Your task to perform on an android device: Clear all items from cart on bestbuy.com. Image 0: 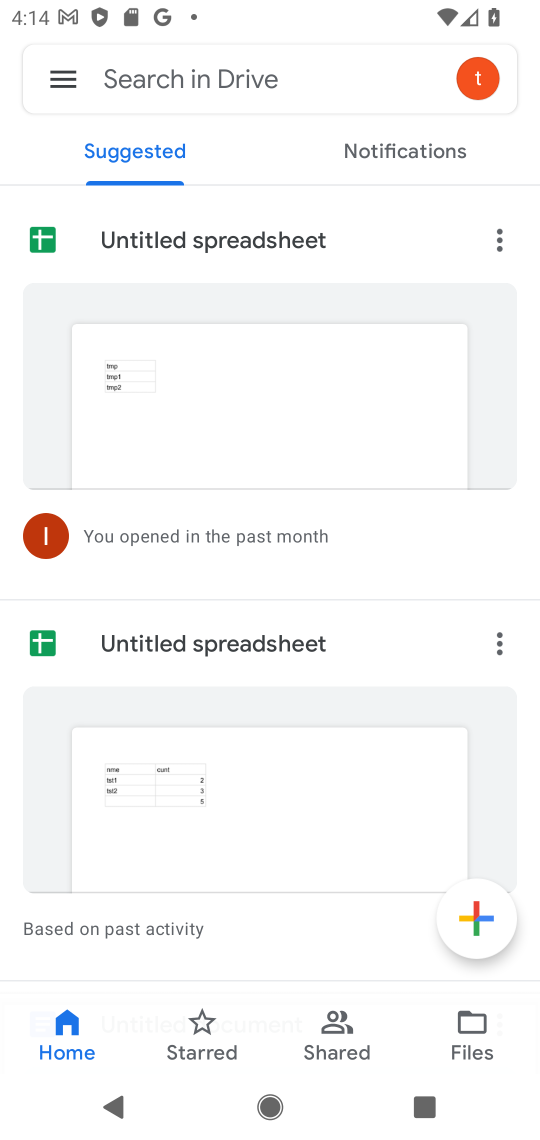
Step 0: press home button
Your task to perform on an android device: Clear all items from cart on bestbuy.com. Image 1: 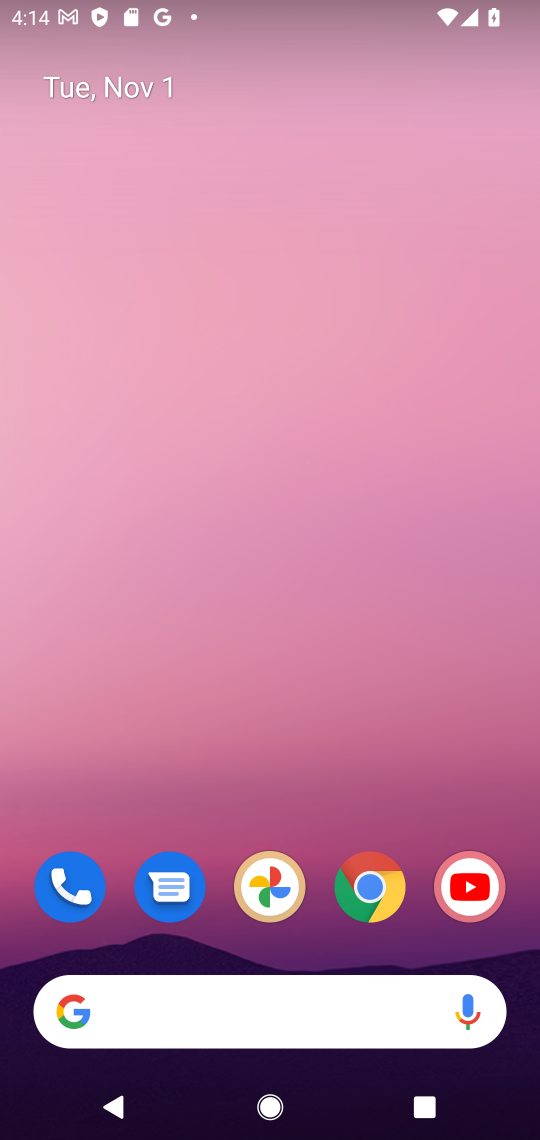
Step 1: drag from (328, 859) to (406, 196)
Your task to perform on an android device: Clear all items from cart on bestbuy.com. Image 2: 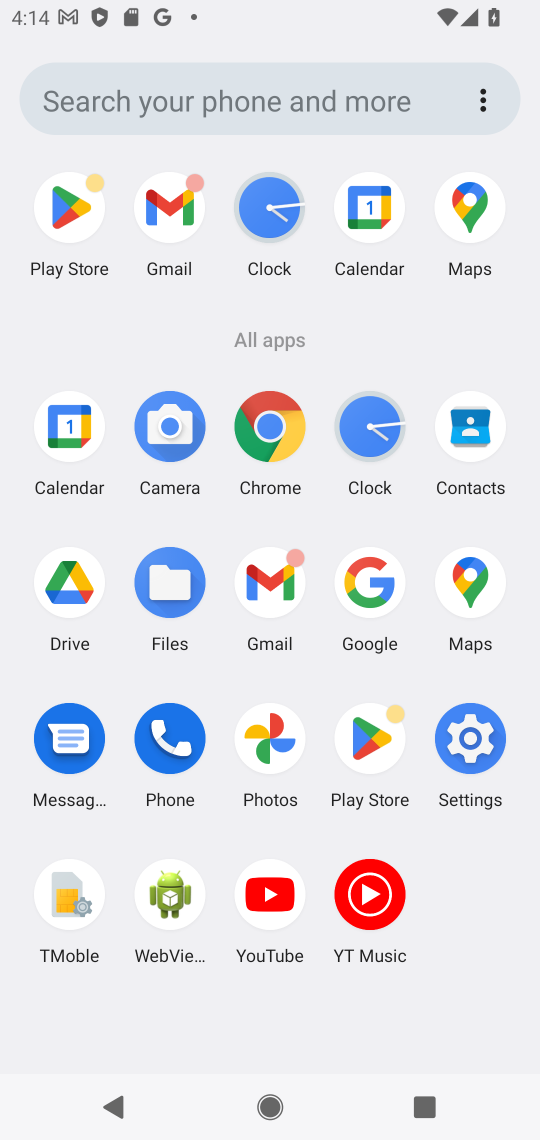
Step 2: click (273, 432)
Your task to perform on an android device: Clear all items from cart on bestbuy.com. Image 3: 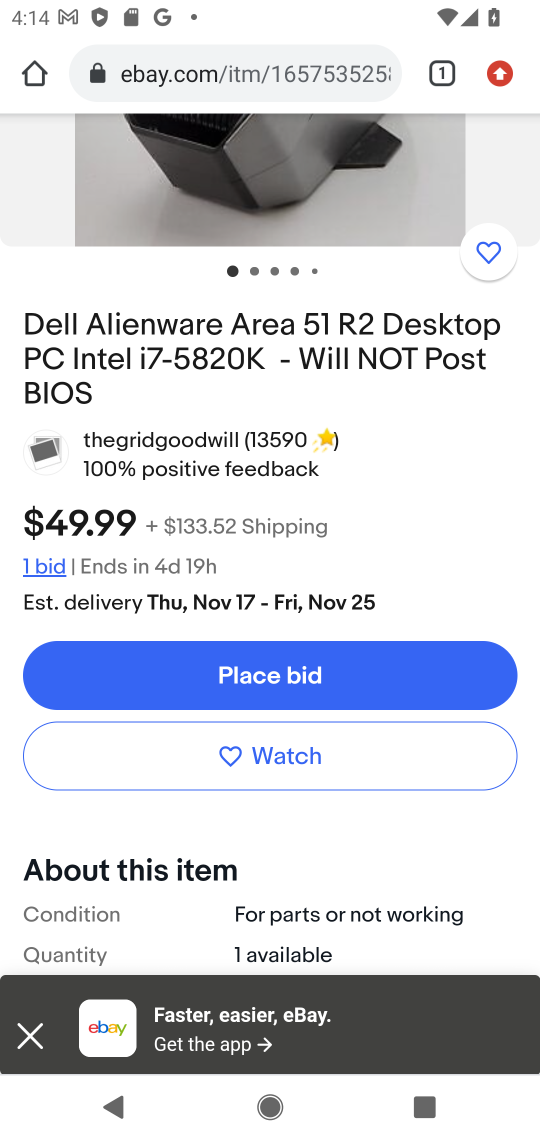
Step 3: drag from (298, 297) to (302, 721)
Your task to perform on an android device: Clear all items from cart on bestbuy.com. Image 4: 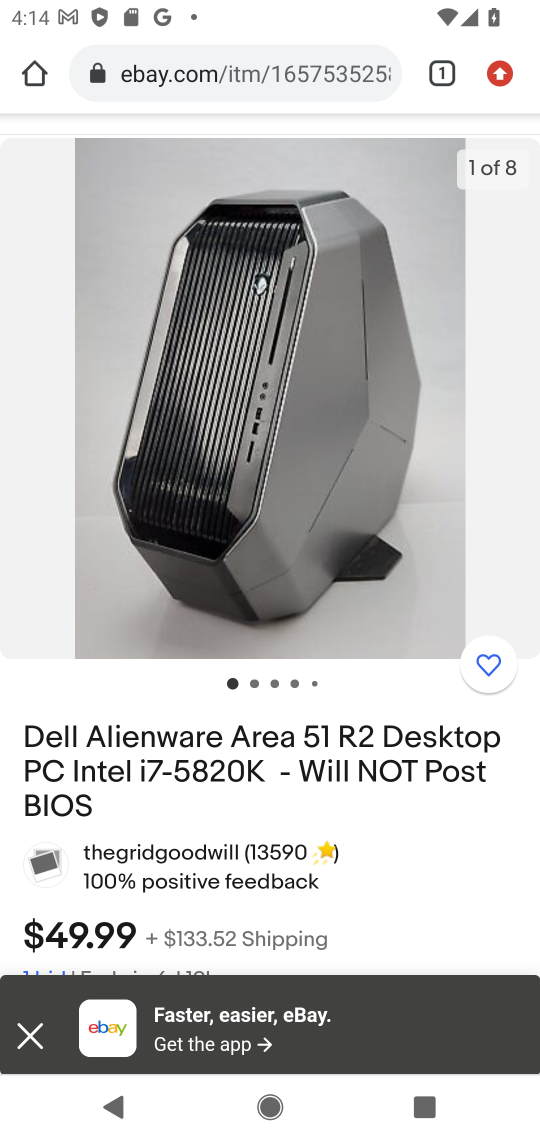
Step 4: click (315, 87)
Your task to perform on an android device: Clear all items from cart on bestbuy.com. Image 5: 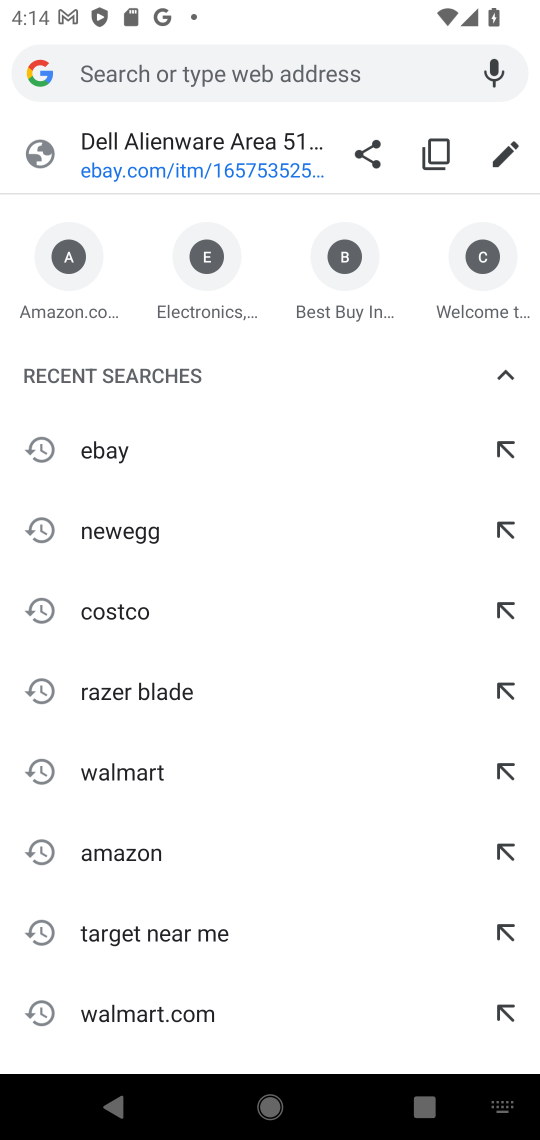
Step 5: type "bestbuy.com"
Your task to perform on an android device: Clear all items from cart on bestbuy.com. Image 6: 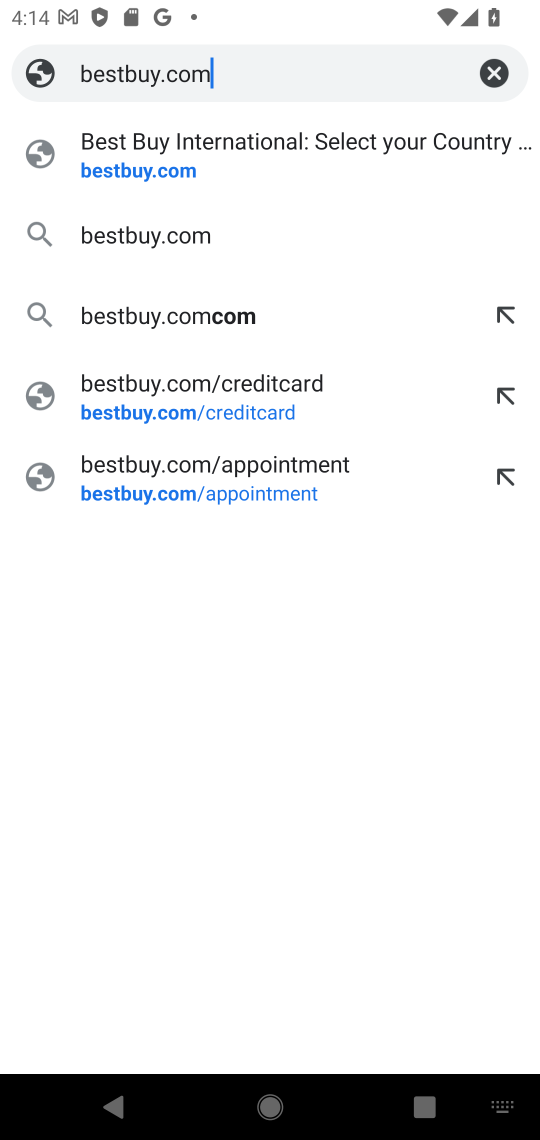
Step 6: press enter
Your task to perform on an android device: Clear all items from cart on bestbuy.com. Image 7: 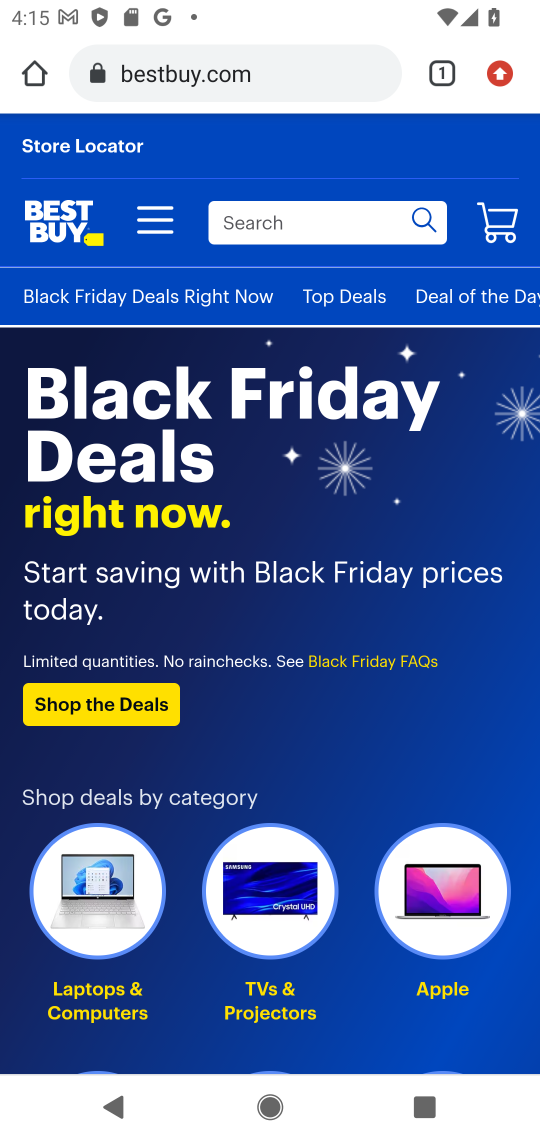
Step 7: click (504, 228)
Your task to perform on an android device: Clear all items from cart on bestbuy.com. Image 8: 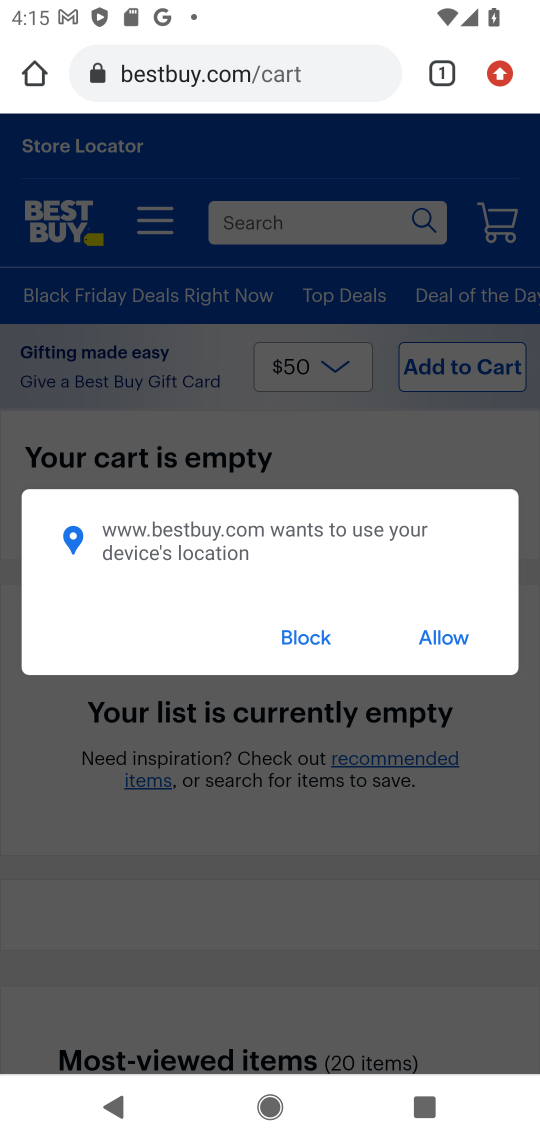
Step 8: click (313, 633)
Your task to perform on an android device: Clear all items from cart on bestbuy.com. Image 9: 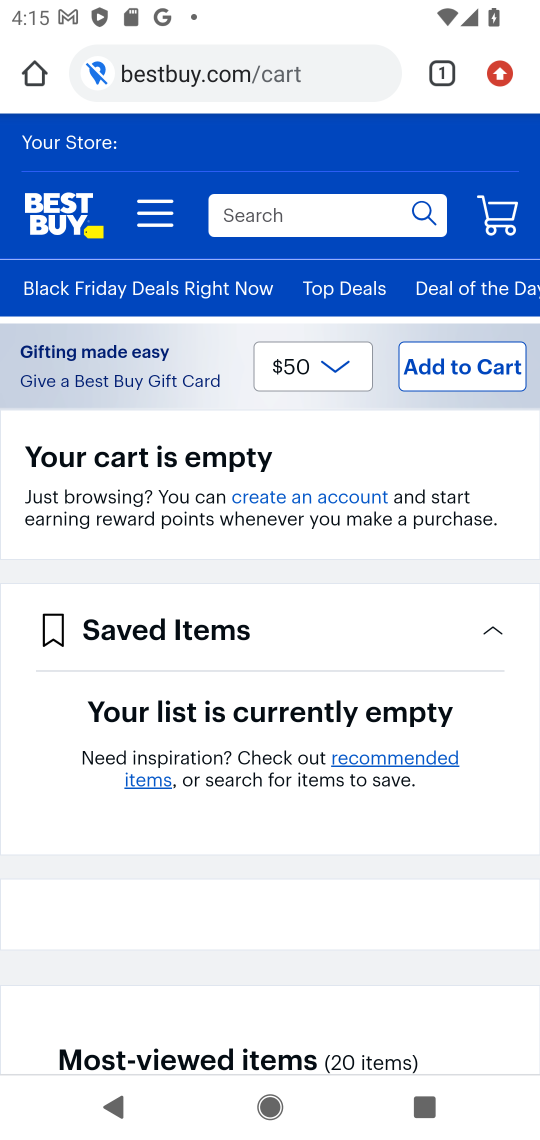
Step 9: click (326, 227)
Your task to perform on an android device: Clear all items from cart on bestbuy.com. Image 10: 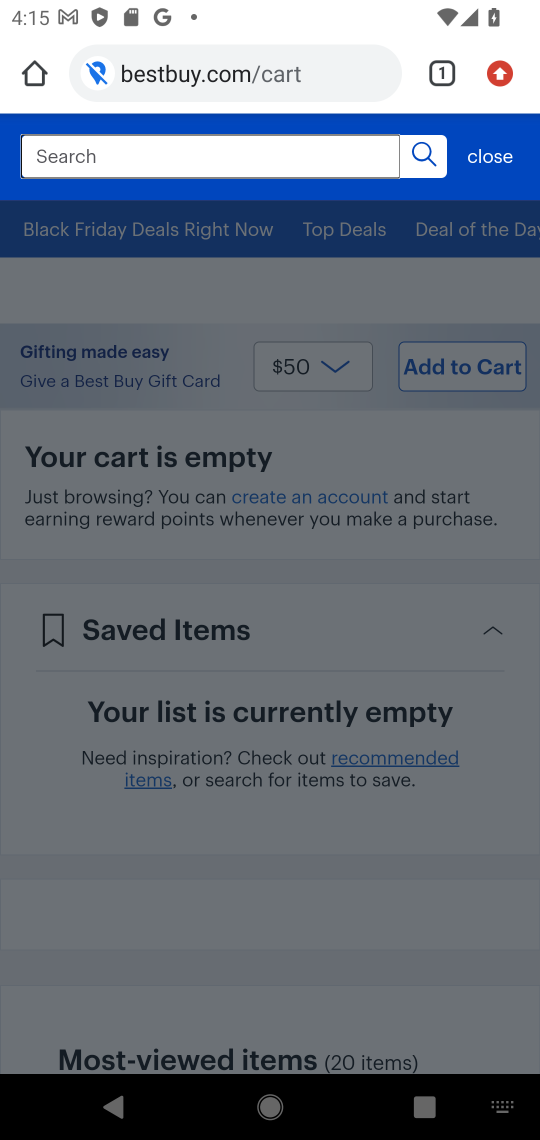
Step 10: click (491, 156)
Your task to perform on an android device: Clear all items from cart on bestbuy.com. Image 11: 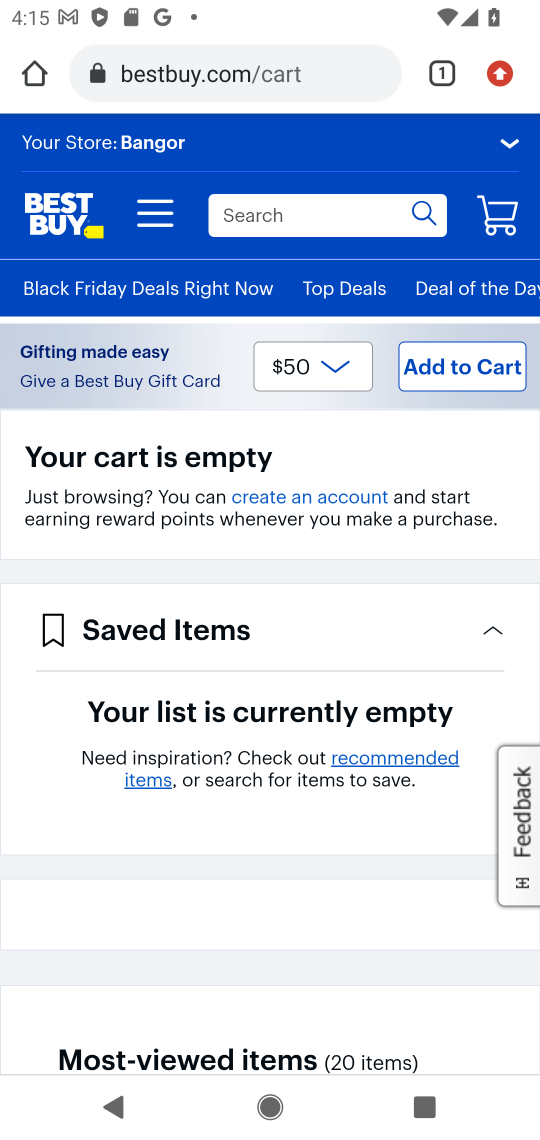
Step 11: task complete